Your task to perform on an android device: Open wifi settings Image 0: 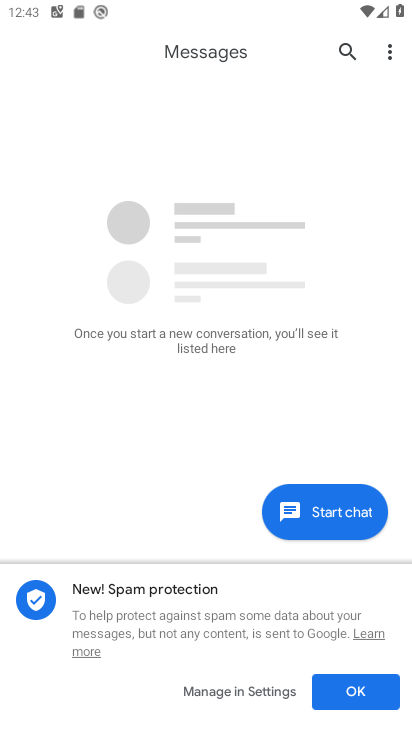
Step 0: press home button
Your task to perform on an android device: Open wifi settings Image 1: 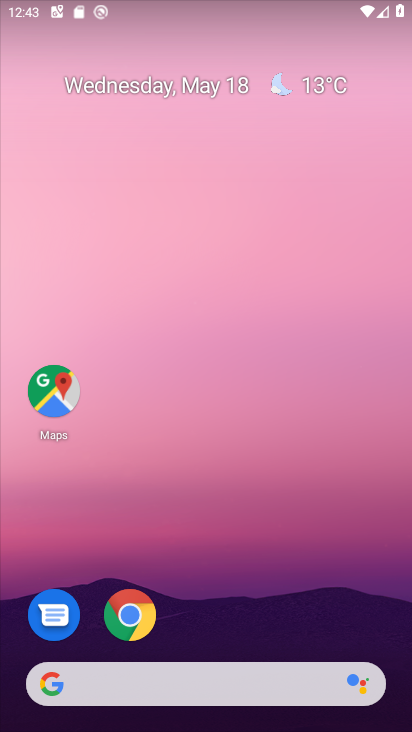
Step 1: drag from (367, 572) to (336, 235)
Your task to perform on an android device: Open wifi settings Image 2: 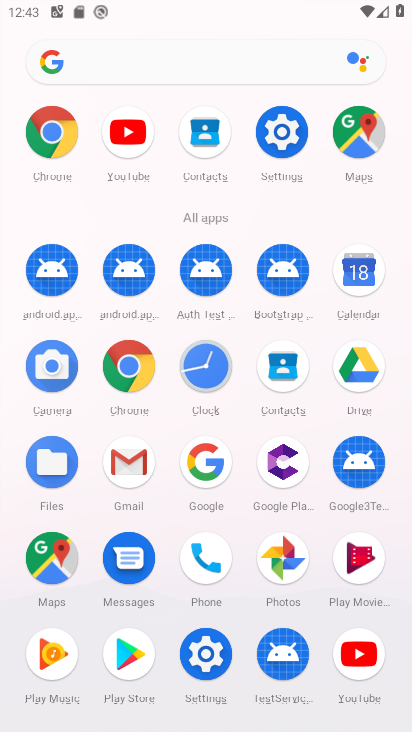
Step 2: click (290, 134)
Your task to perform on an android device: Open wifi settings Image 3: 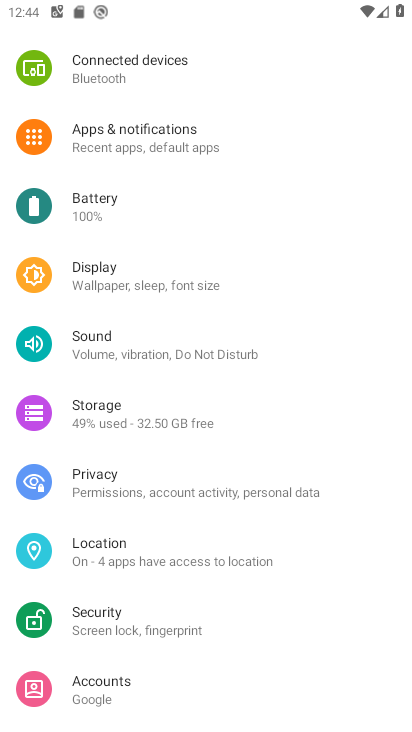
Step 3: drag from (304, 113) to (357, 403)
Your task to perform on an android device: Open wifi settings Image 4: 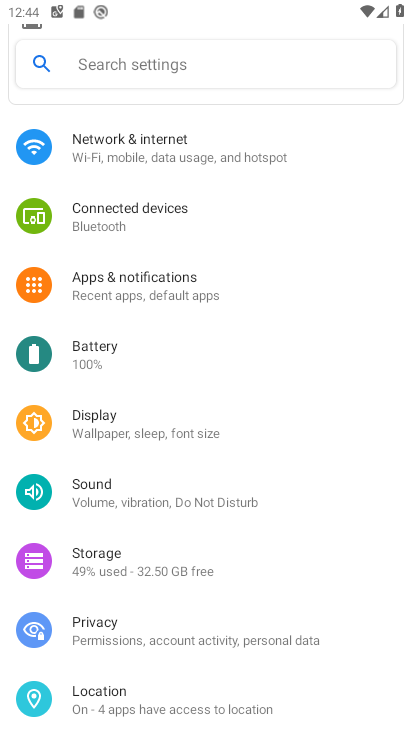
Step 4: click (131, 146)
Your task to perform on an android device: Open wifi settings Image 5: 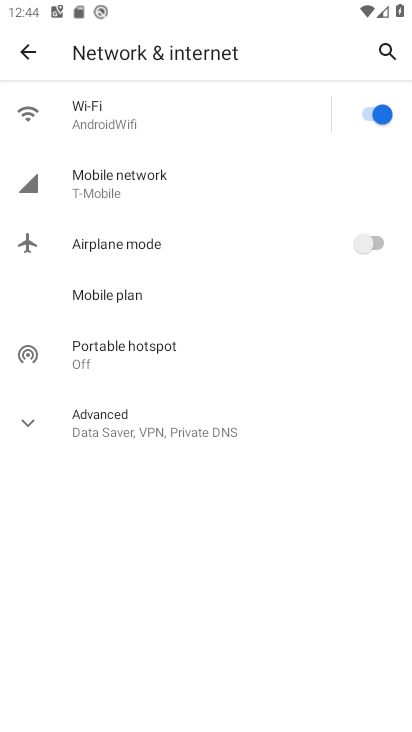
Step 5: click (106, 109)
Your task to perform on an android device: Open wifi settings Image 6: 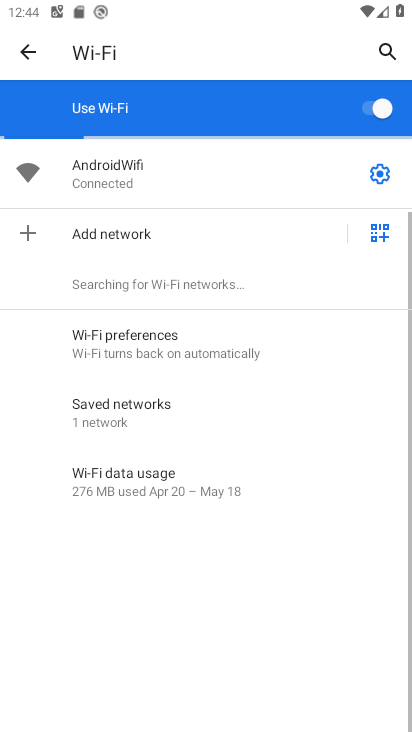
Step 6: click (378, 169)
Your task to perform on an android device: Open wifi settings Image 7: 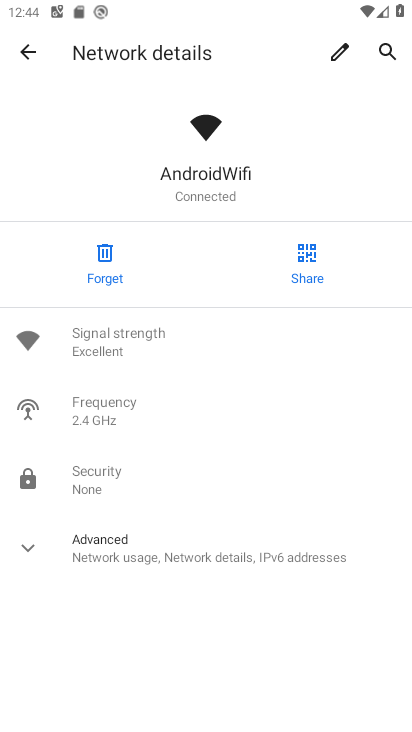
Step 7: task complete